Your task to perform on an android device: What is the news today? Image 0: 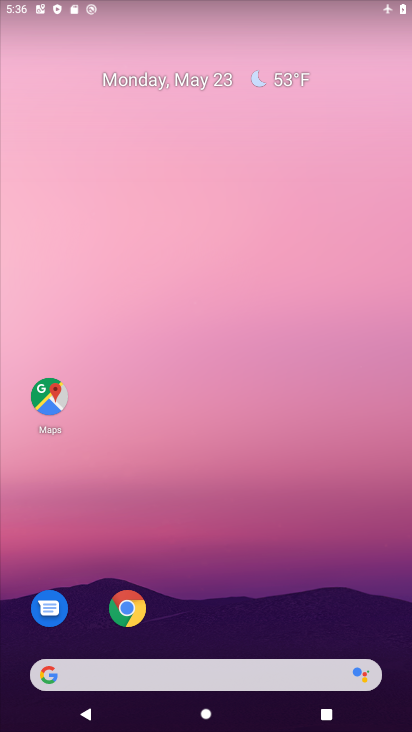
Step 0: drag from (294, 618) to (256, 258)
Your task to perform on an android device: What is the news today? Image 1: 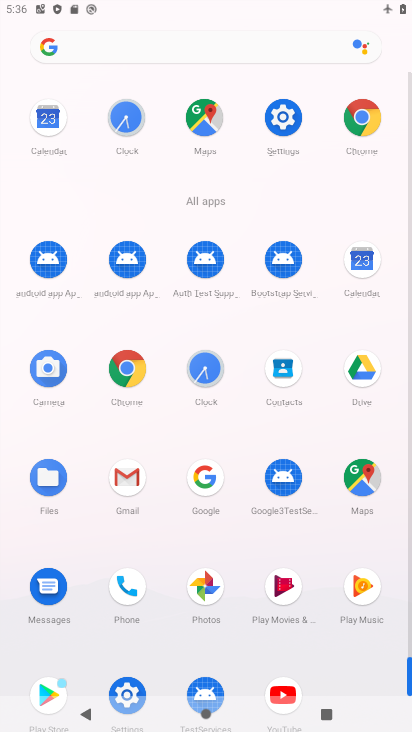
Step 1: click (203, 493)
Your task to perform on an android device: What is the news today? Image 2: 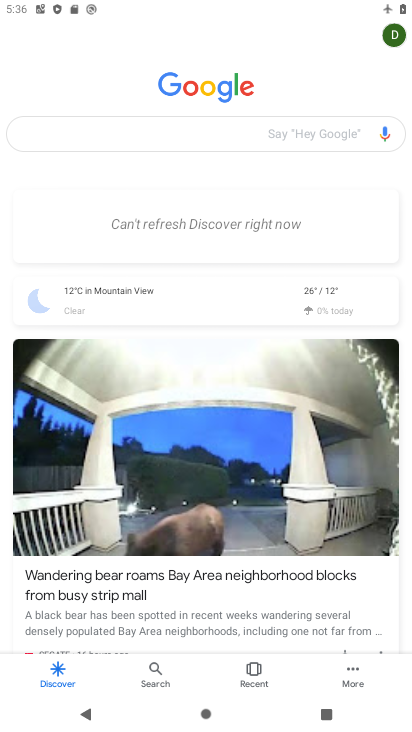
Step 2: task complete